Your task to perform on an android device: Open network settings Image 0: 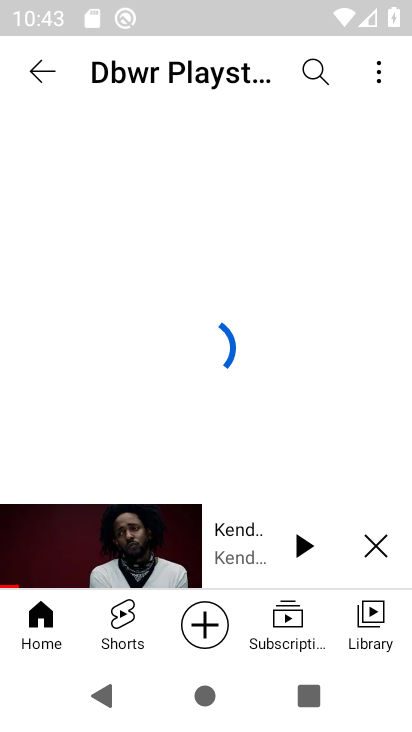
Step 0: drag from (334, 538) to (406, 489)
Your task to perform on an android device: Open network settings Image 1: 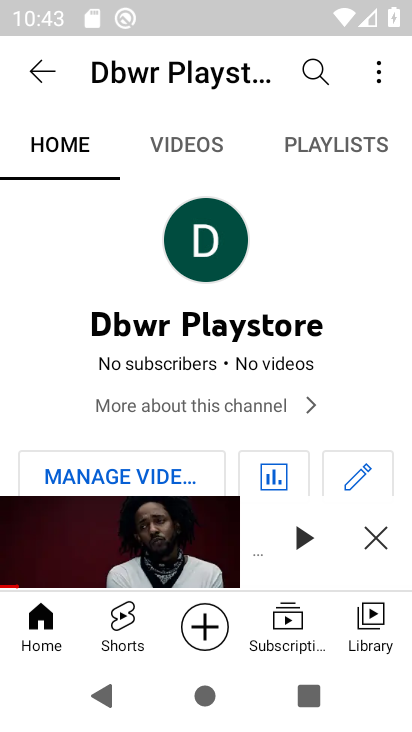
Step 1: press home button
Your task to perform on an android device: Open network settings Image 2: 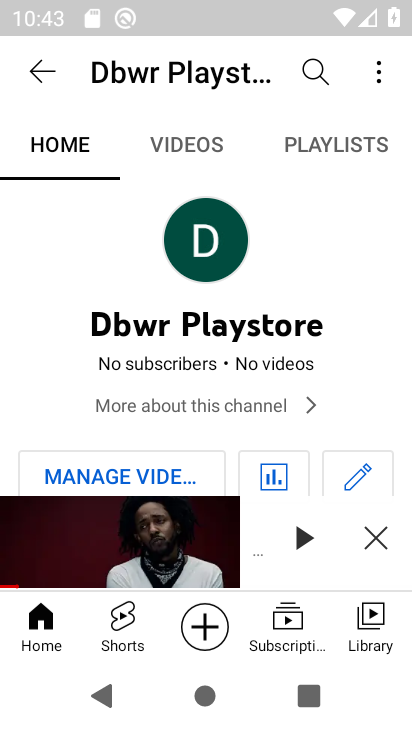
Step 2: drag from (406, 489) to (403, 300)
Your task to perform on an android device: Open network settings Image 3: 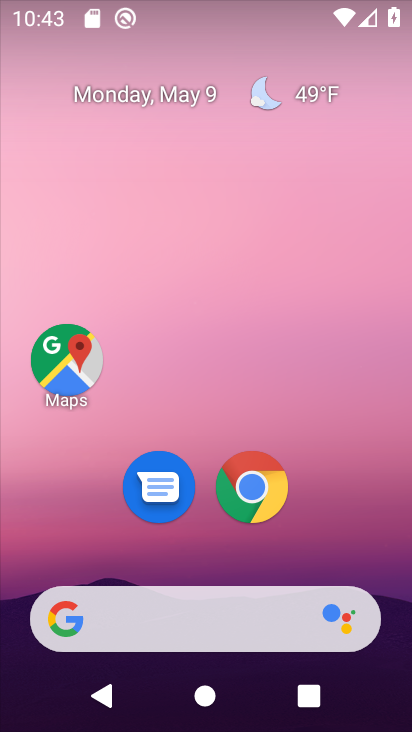
Step 3: drag from (358, 524) to (85, 94)
Your task to perform on an android device: Open network settings Image 4: 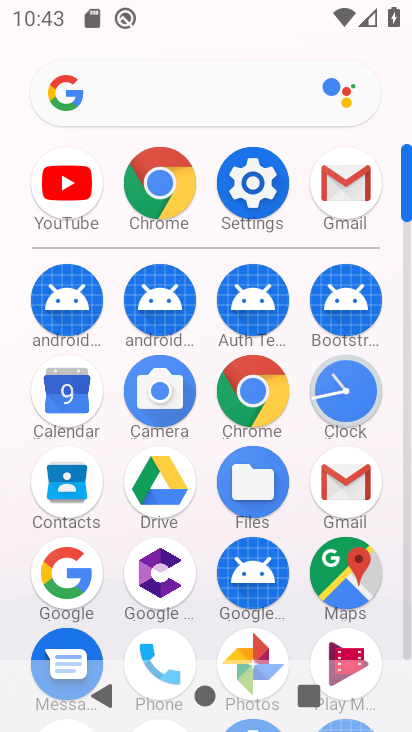
Step 4: click (257, 194)
Your task to perform on an android device: Open network settings Image 5: 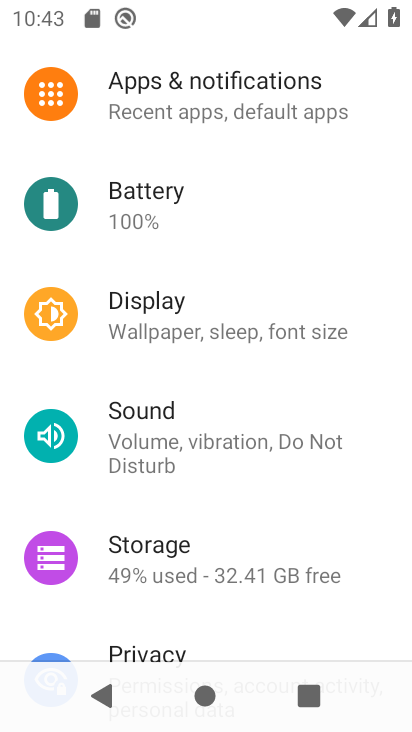
Step 5: drag from (232, 176) to (161, 569)
Your task to perform on an android device: Open network settings Image 6: 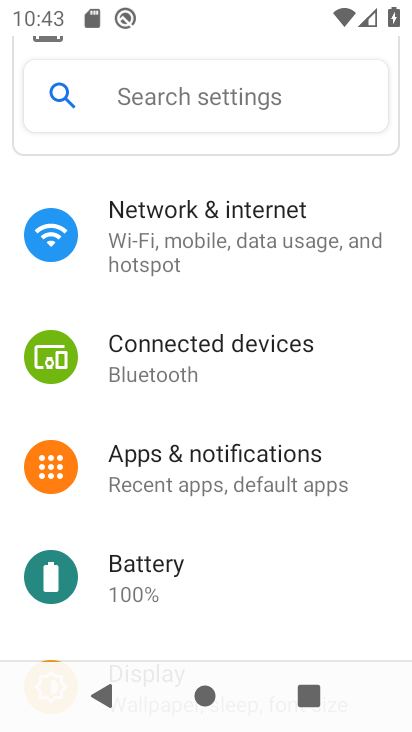
Step 6: click (186, 236)
Your task to perform on an android device: Open network settings Image 7: 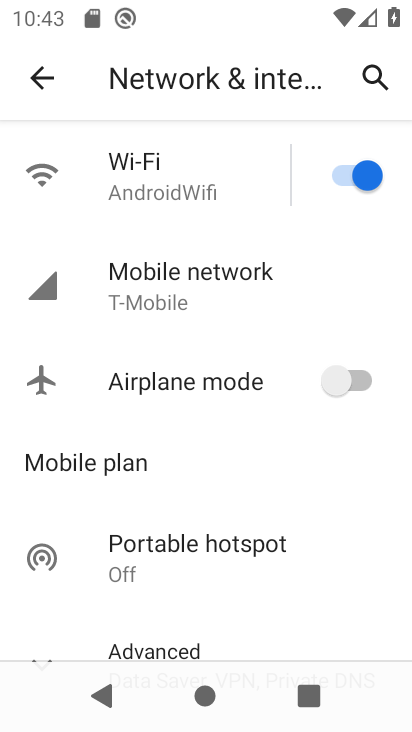
Step 7: click (133, 301)
Your task to perform on an android device: Open network settings Image 8: 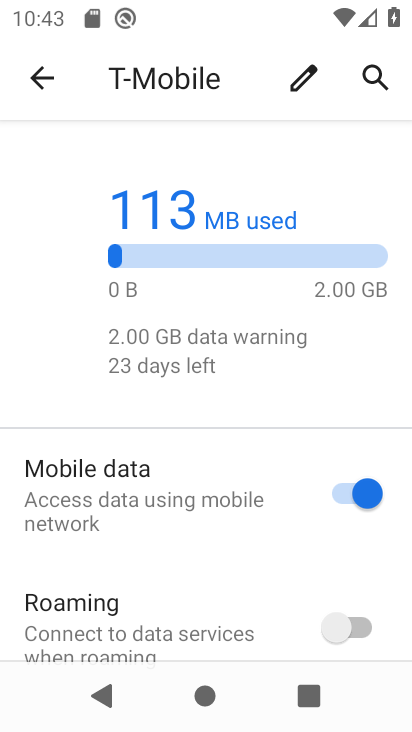
Step 8: drag from (155, 597) to (148, 288)
Your task to perform on an android device: Open network settings Image 9: 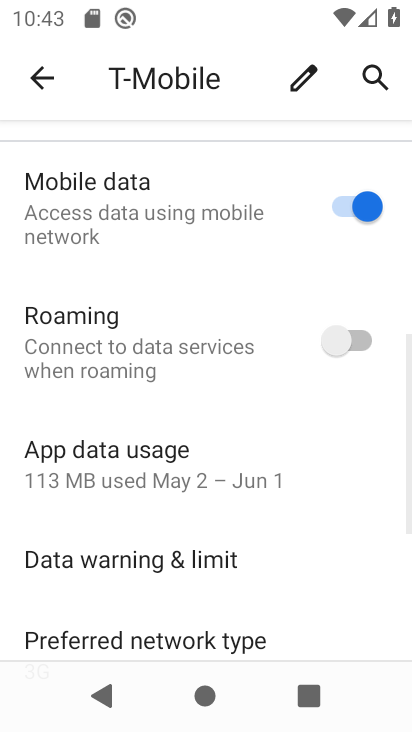
Step 9: drag from (112, 602) to (146, 232)
Your task to perform on an android device: Open network settings Image 10: 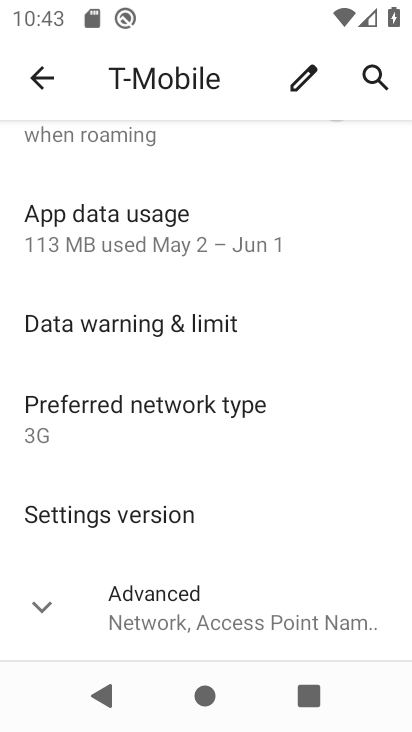
Step 10: click (173, 620)
Your task to perform on an android device: Open network settings Image 11: 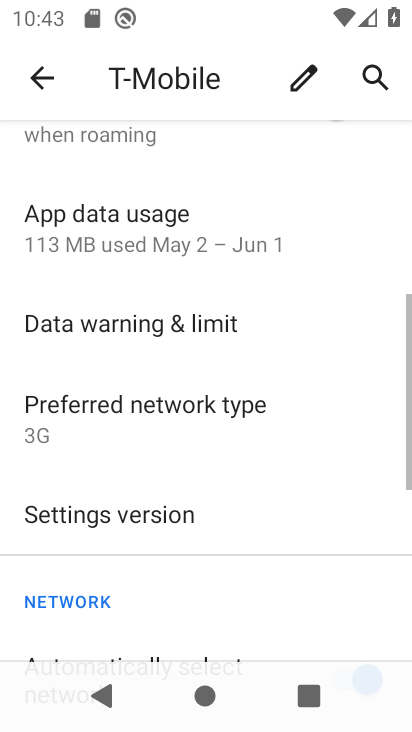
Step 11: task complete